Your task to perform on an android device: Open calendar and show me the second week of next month Image 0: 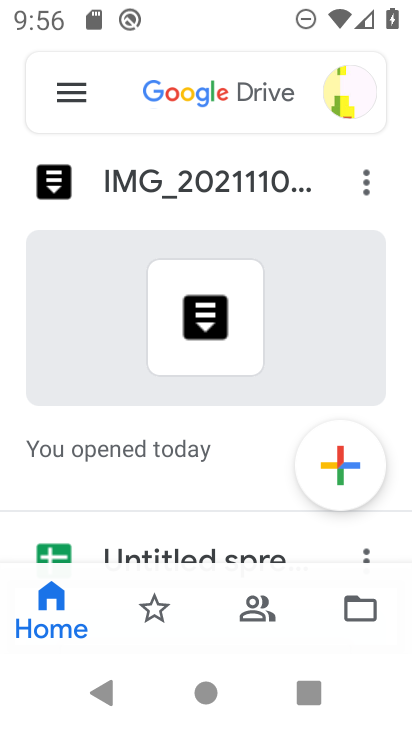
Step 0: press home button
Your task to perform on an android device: Open calendar and show me the second week of next month Image 1: 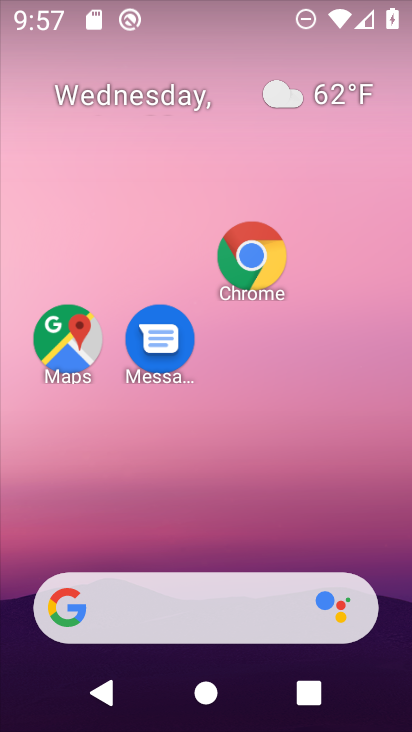
Step 1: drag from (251, 475) to (197, 74)
Your task to perform on an android device: Open calendar and show me the second week of next month Image 2: 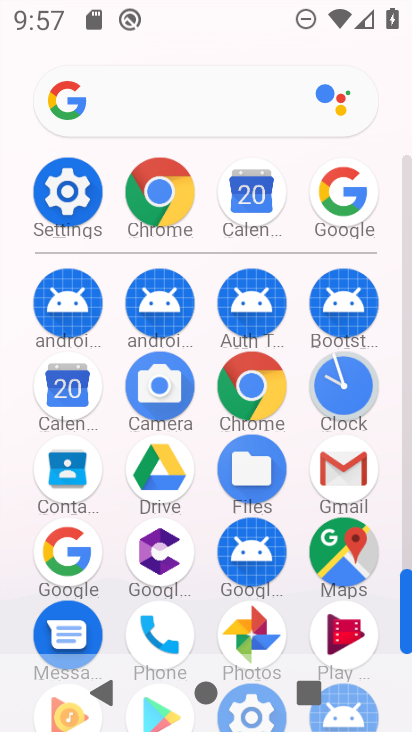
Step 2: click (64, 391)
Your task to perform on an android device: Open calendar and show me the second week of next month Image 3: 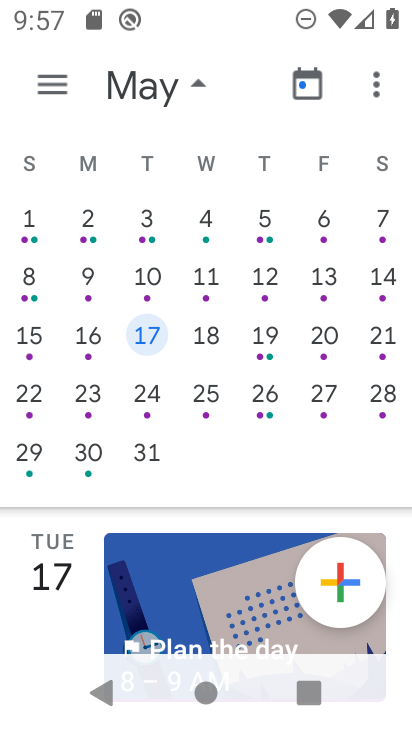
Step 3: click (153, 278)
Your task to perform on an android device: Open calendar and show me the second week of next month Image 4: 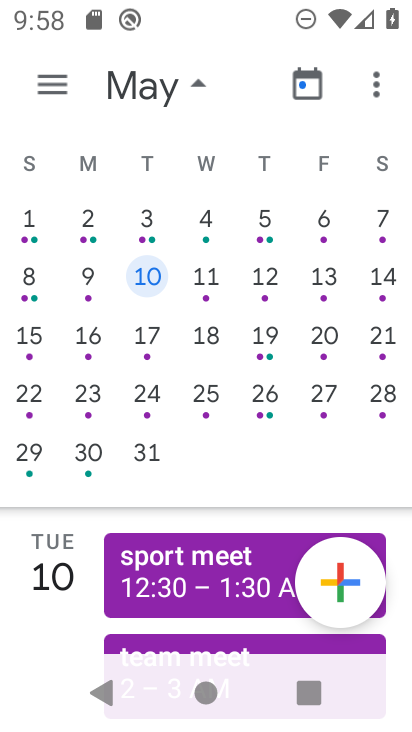
Step 4: task complete